Your task to perform on an android device: turn off javascript in the chrome app Image 0: 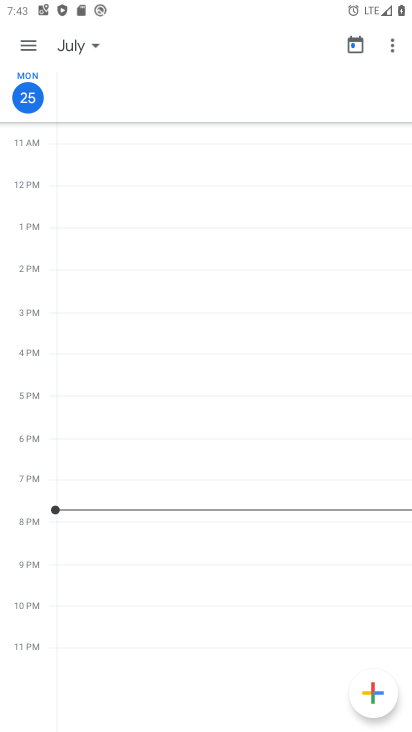
Step 0: press home button
Your task to perform on an android device: turn off javascript in the chrome app Image 1: 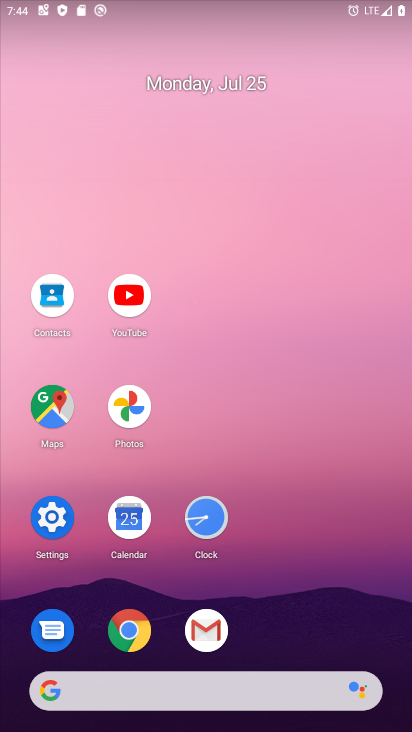
Step 1: click (117, 625)
Your task to perform on an android device: turn off javascript in the chrome app Image 2: 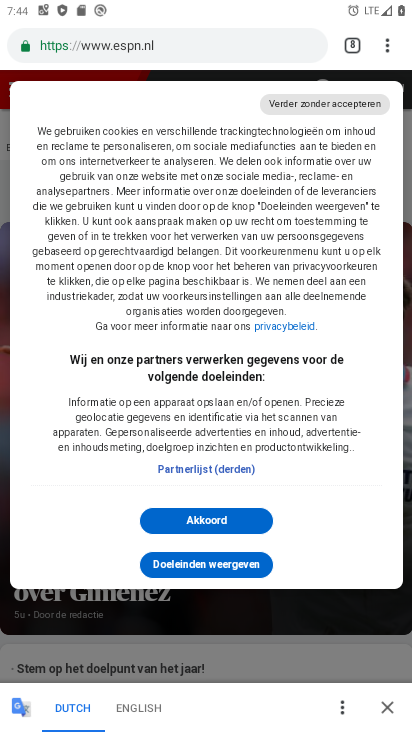
Step 2: click (384, 42)
Your task to perform on an android device: turn off javascript in the chrome app Image 3: 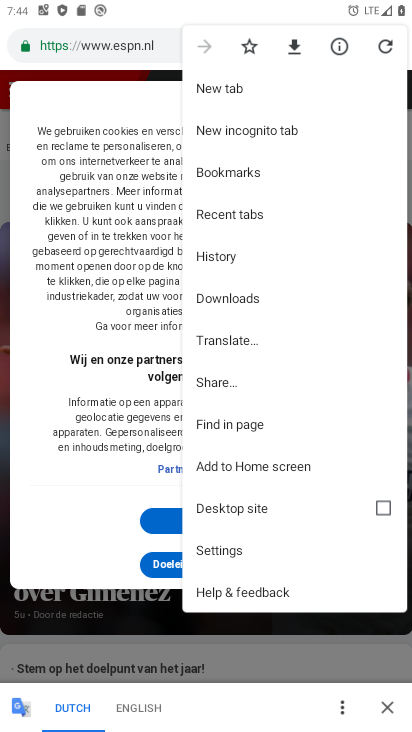
Step 3: click (224, 548)
Your task to perform on an android device: turn off javascript in the chrome app Image 4: 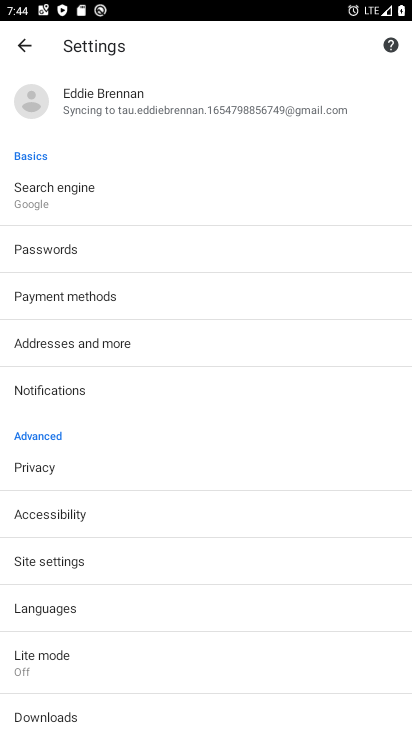
Step 4: click (54, 557)
Your task to perform on an android device: turn off javascript in the chrome app Image 5: 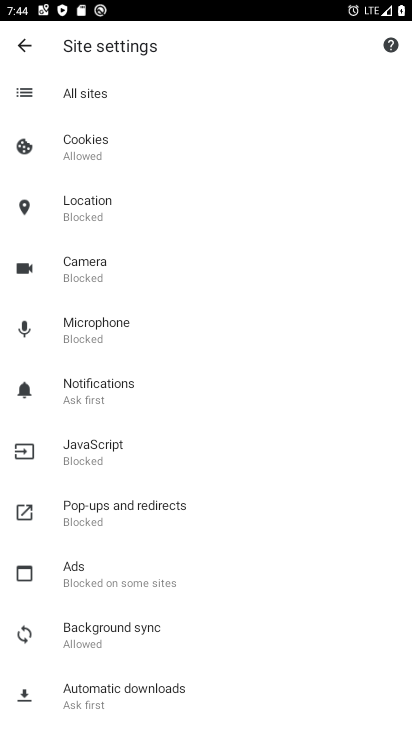
Step 5: click (101, 447)
Your task to perform on an android device: turn off javascript in the chrome app Image 6: 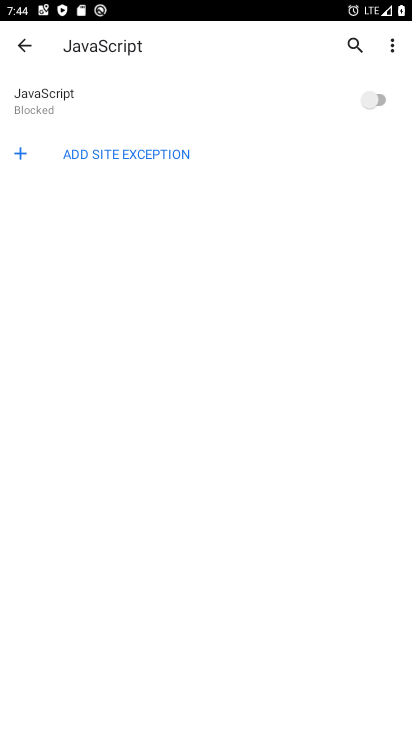
Step 6: task complete